Your task to perform on an android device: turn off sleep mode Image 0: 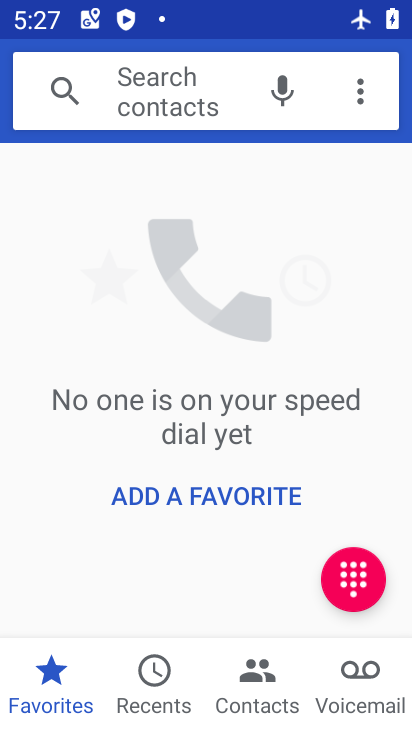
Step 0: press home button
Your task to perform on an android device: turn off sleep mode Image 1: 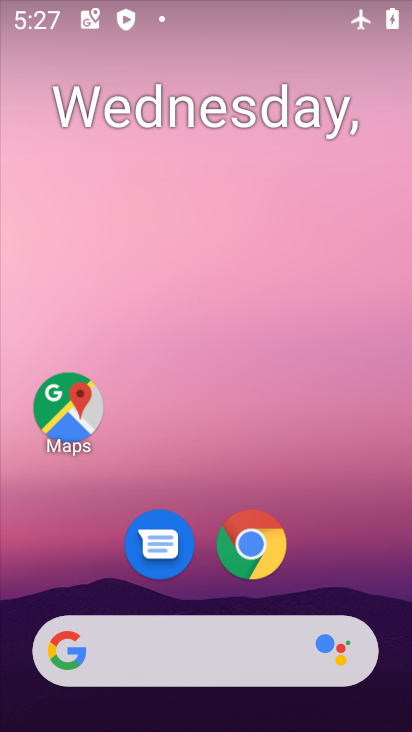
Step 1: drag from (396, 713) to (278, 128)
Your task to perform on an android device: turn off sleep mode Image 2: 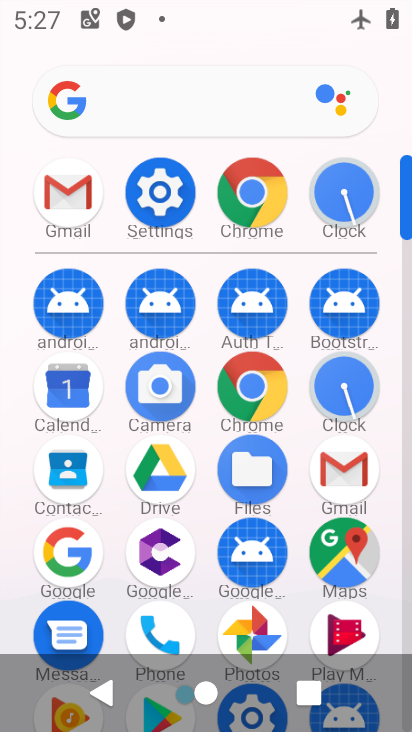
Step 2: click (164, 182)
Your task to perform on an android device: turn off sleep mode Image 3: 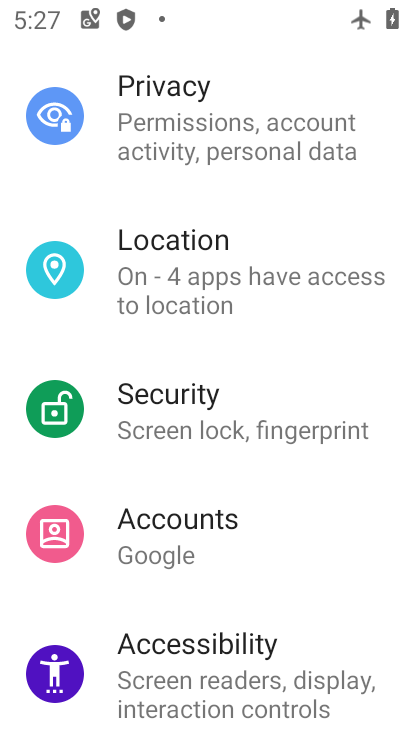
Step 3: drag from (253, 144) to (279, 607)
Your task to perform on an android device: turn off sleep mode Image 4: 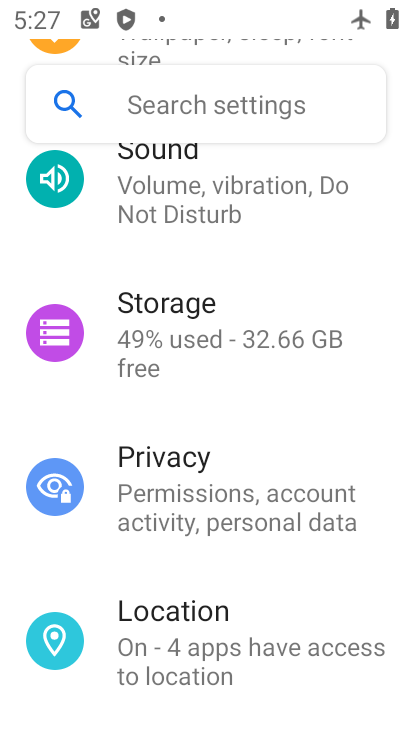
Step 4: drag from (267, 158) to (315, 676)
Your task to perform on an android device: turn off sleep mode Image 5: 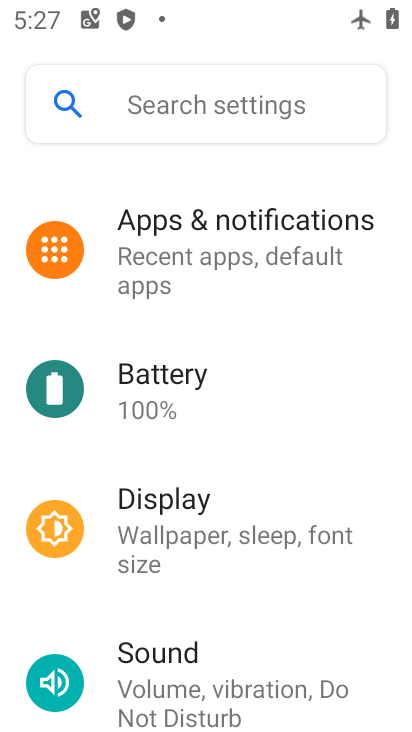
Step 5: click (200, 240)
Your task to perform on an android device: turn off sleep mode Image 6: 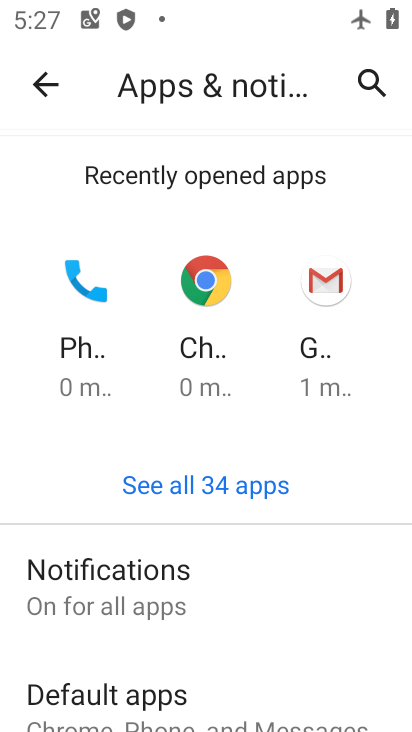
Step 6: click (40, 90)
Your task to perform on an android device: turn off sleep mode Image 7: 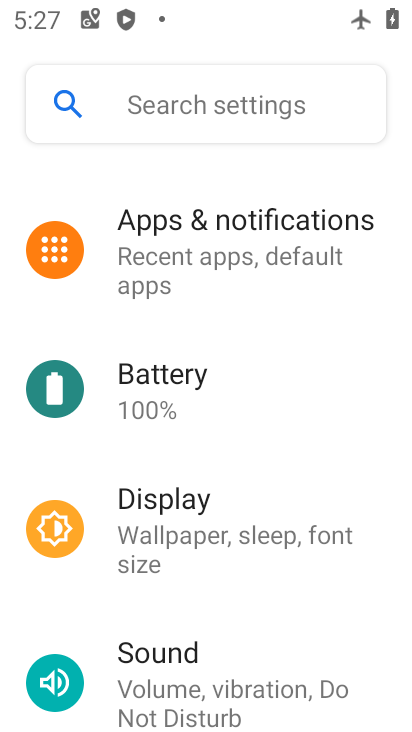
Step 7: drag from (244, 222) to (296, 589)
Your task to perform on an android device: turn off sleep mode Image 8: 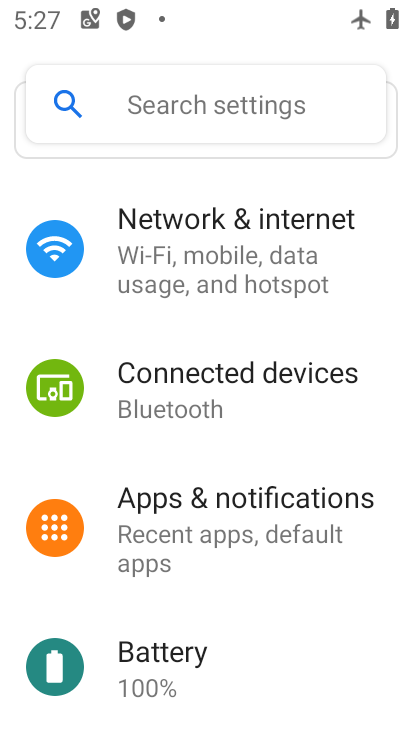
Step 8: click (229, 247)
Your task to perform on an android device: turn off sleep mode Image 9: 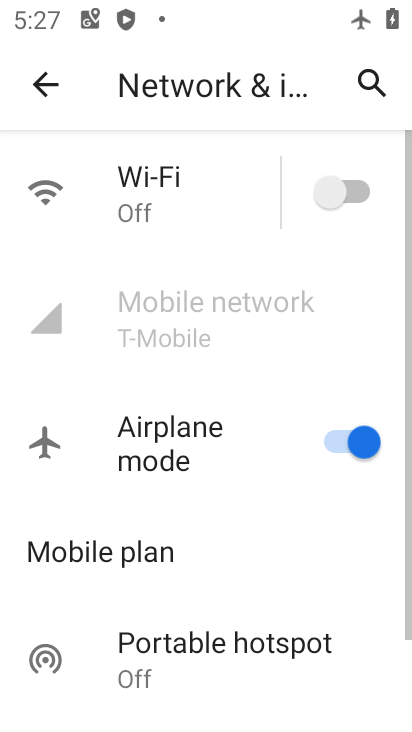
Step 9: click (335, 447)
Your task to perform on an android device: turn off sleep mode Image 10: 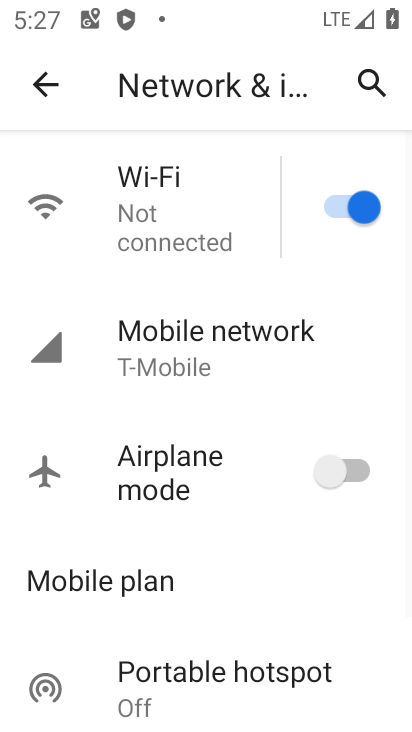
Step 10: click (40, 82)
Your task to perform on an android device: turn off sleep mode Image 11: 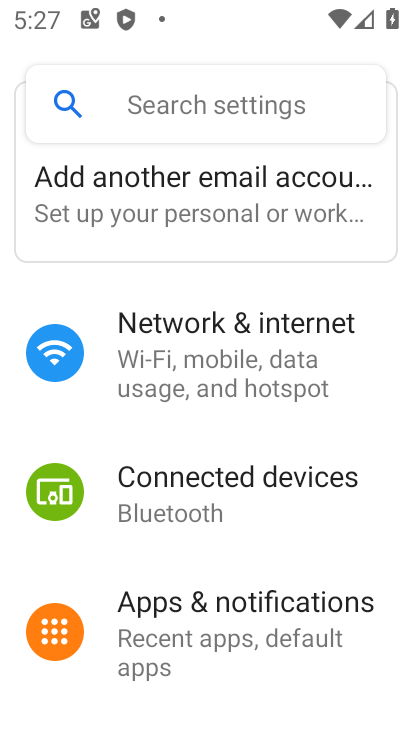
Step 11: drag from (247, 657) to (233, 323)
Your task to perform on an android device: turn off sleep mode Image 12: 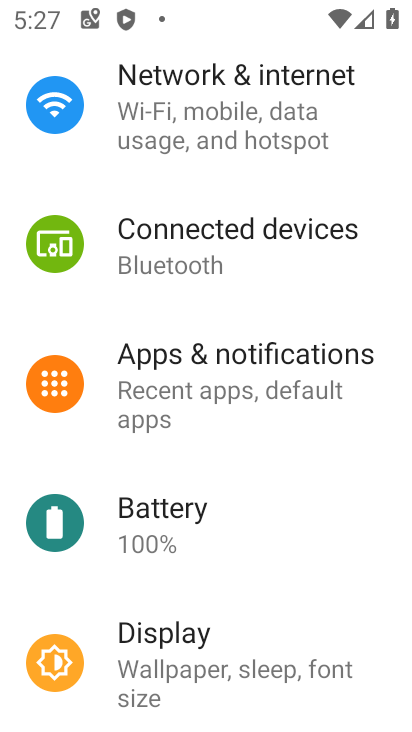
Step 12: click (180, 640)
Your task to perform on an android device: turn off sleep mode Image 13: 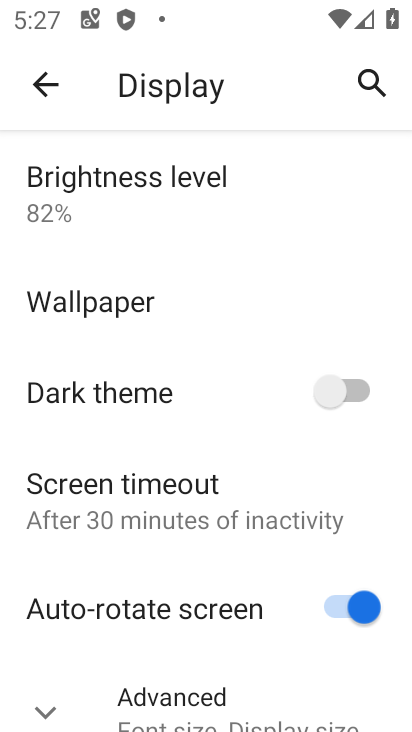
Step 13: click (110, 507)
Your task to perform on an android device: turn off sleep mode Image 14: 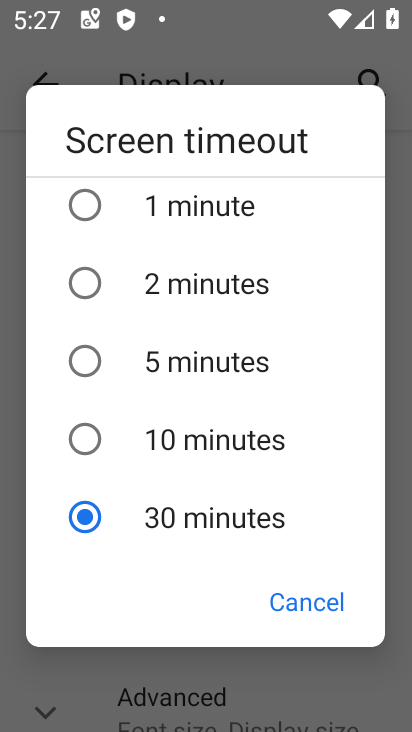
Step 14: task complete